Your task to perform on an android device: open a new tab in the chrome app Image 0: 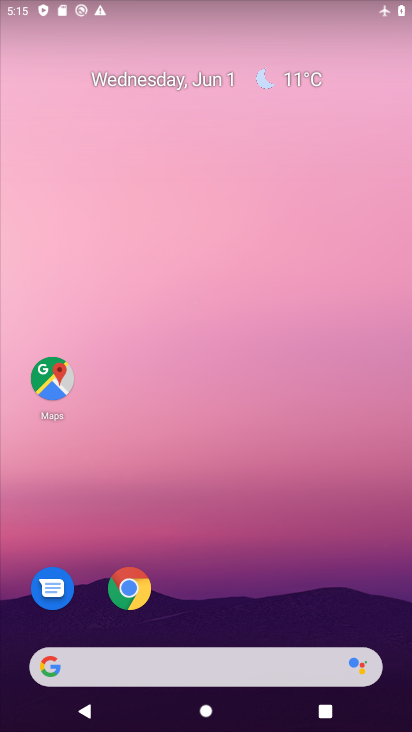
Step 0: click (121, 594)
Your task to perform on an android device: open a new tab in the chrome app Image 1: 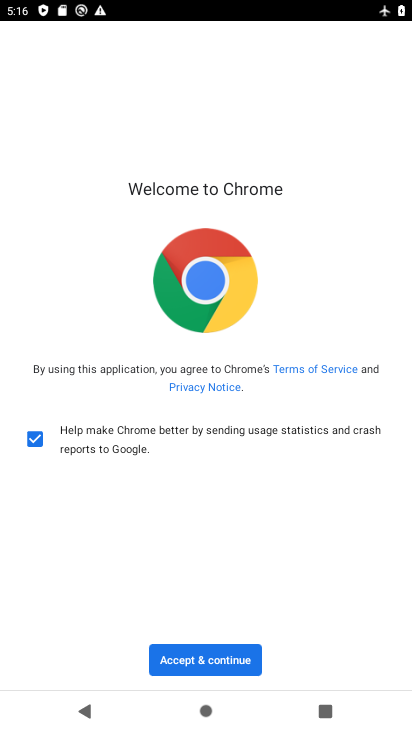
Step 1: click (217, 672)
Your task to perform on an android device: open a new tab in the chrome app Image 2: 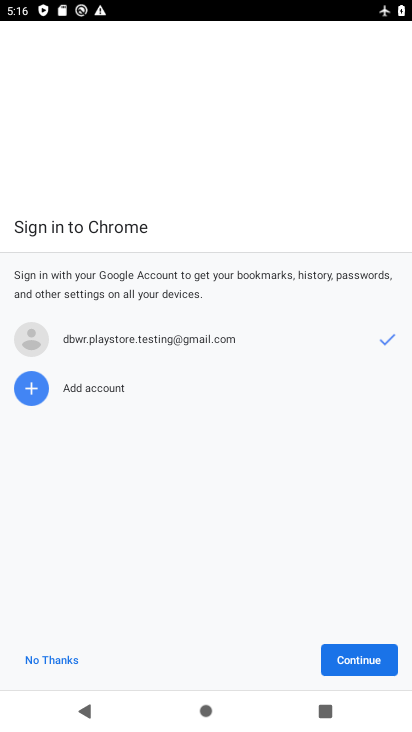
Step 2: click (385, 663)
Your task to perform on an android device: open a new tab in the chrome app Image 3: 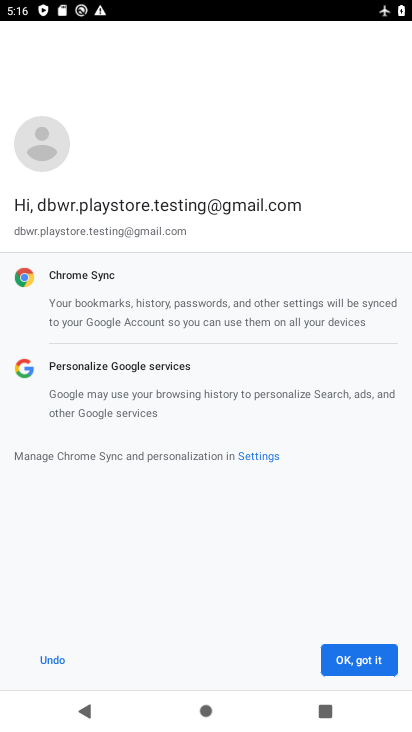
Step 3: click (385, 663)
Your task to perform on an android device: open a new tab in the chrome app Image 4: 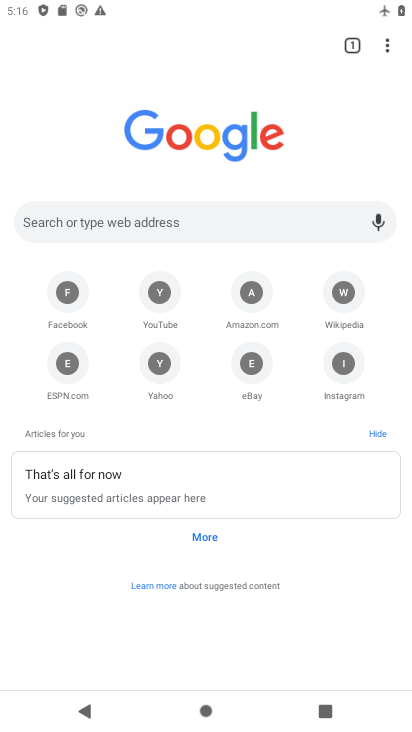
Step 4: task complete